Your task to perform on an android device: Go to Yahoo.com Image 0: 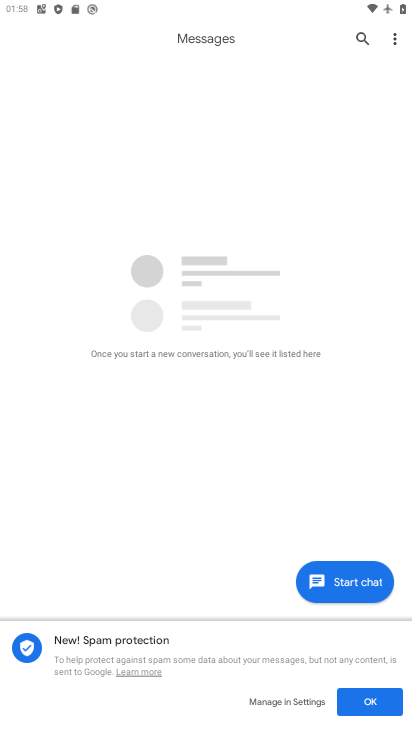
Step 0: press home button
Your task to perform on an android device: Go to Yahoo.com Image 1: 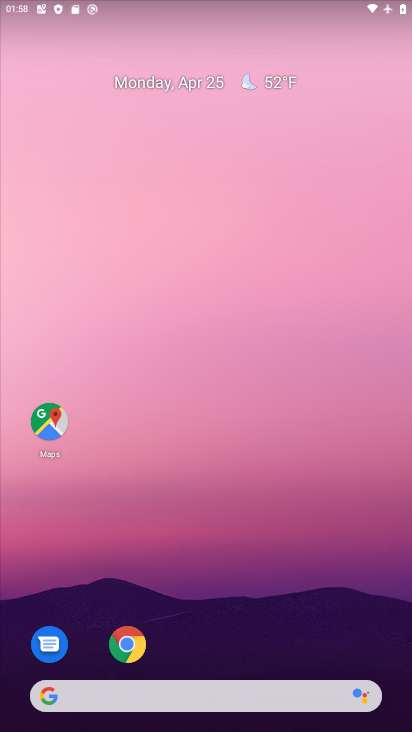
Step 1: click (192, 690)
Your task to perform on an android device: Go to Yahoo.com Image 2: 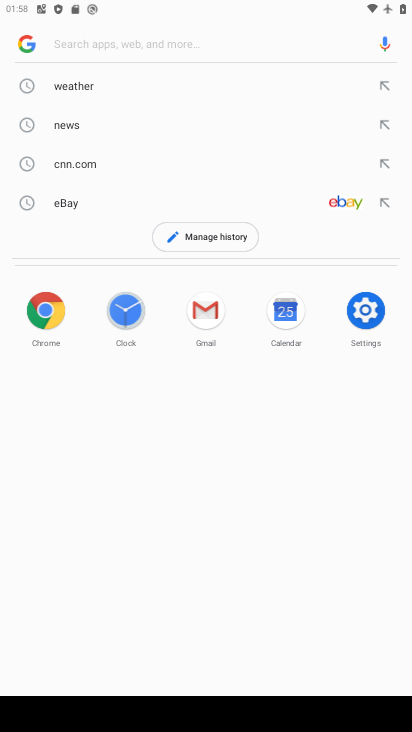
Step 2: click (133, 37)
Your task to perform on an android device: Go to Yahoo.com Image 3: 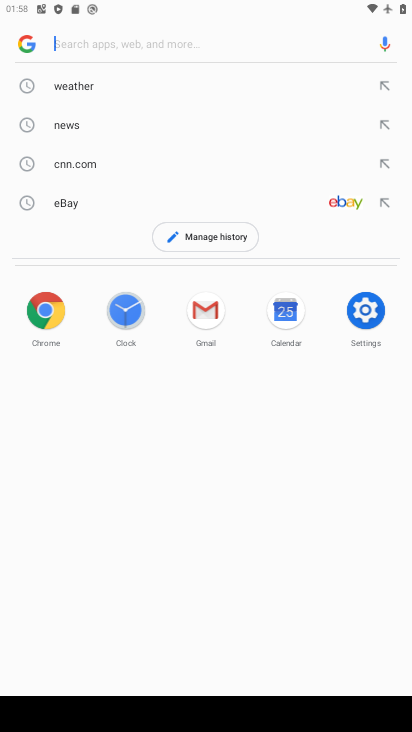
Step 3: click (133, 37)
Your task to perform on an android device: Go to Yahoo.com Image 4: 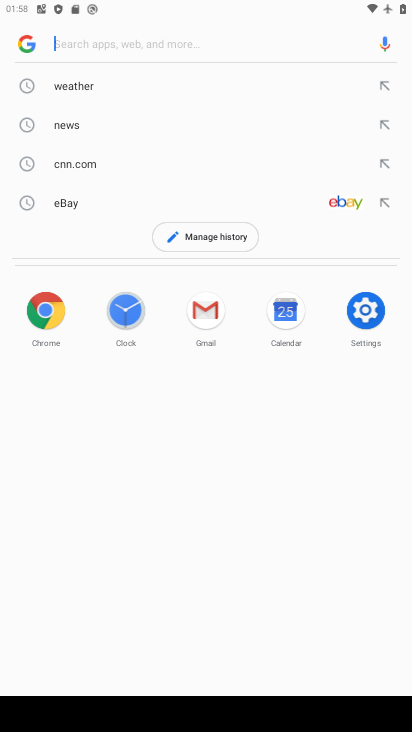
Step 4: click (133, 37)
Your task to perform on an android device: Go to Yahoo.com Image 5: 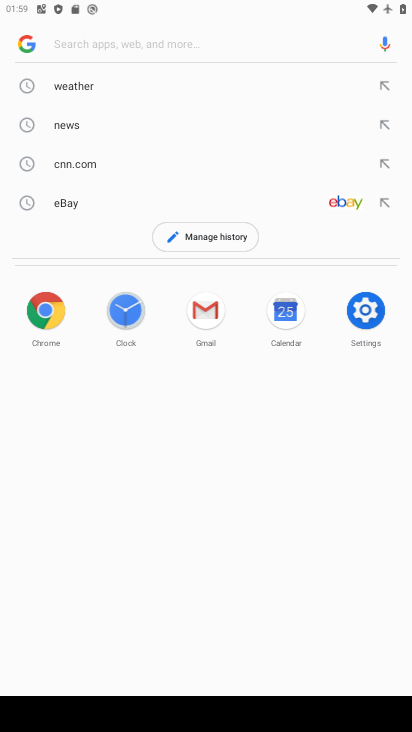
Step 5: type "yahoo.com"
Your task to perform on an android device: Go to Yahoo.com Image 6: 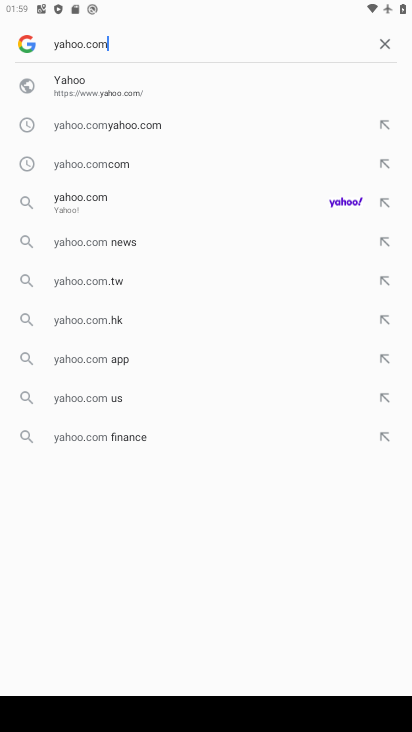
Step 6: click (147, 88)
Your task to perform on an android device: Go to Yahoo.com Image 7: 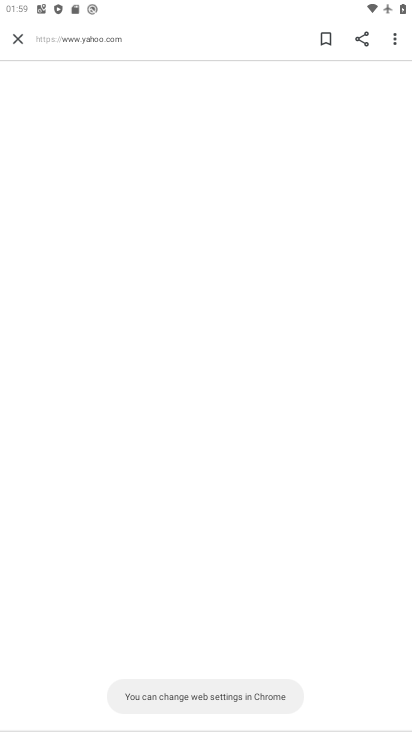
Step 7: task complete